Your task to perform on an android device: Go to Google maps Image 0: 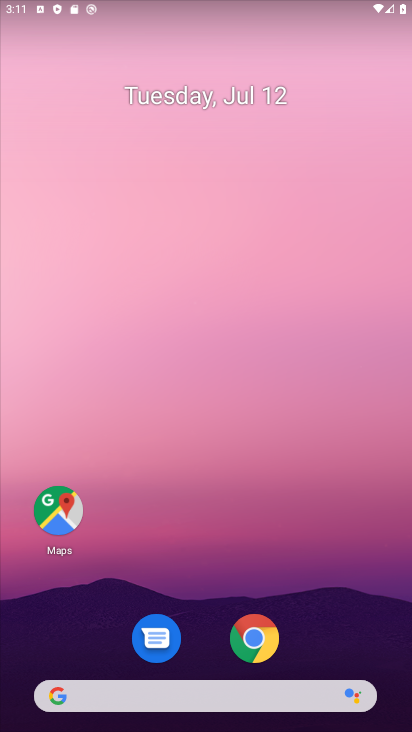
Step 0: click (70, 504)
Your task to perform on an android device: Go to Google maps Image 1: 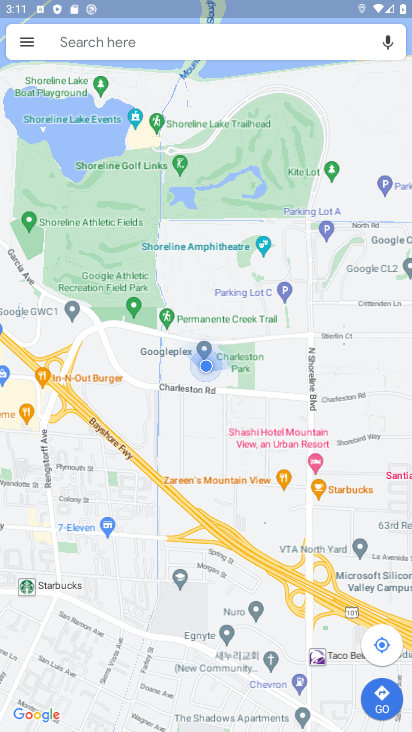
Step 1: task complete